Your task to perform on an android device: Show me popular games on the Play Store Image 0: 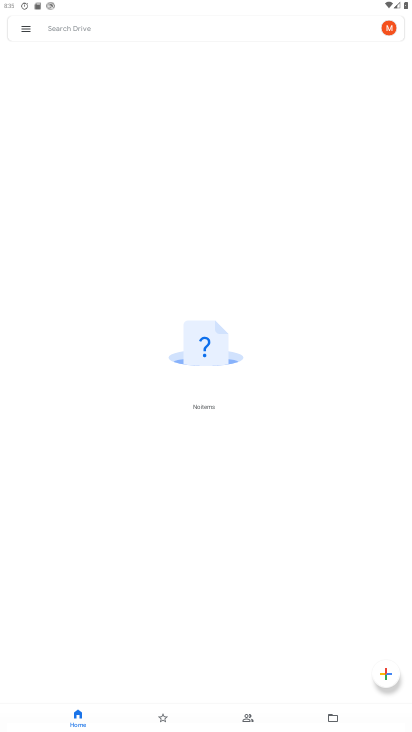
Step 0: press home button
Your task to perform on an android device: Show me popular games on the Play Store Image 1: 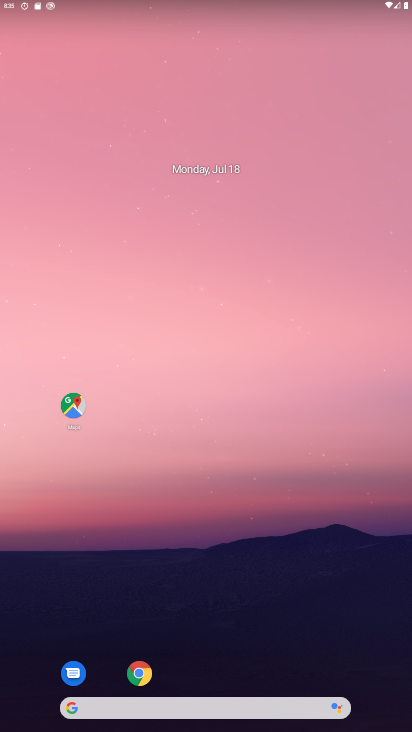
Step 1: click (170, 210)
Your task to perform on an android device: Show me popular games on the Play Store Image 2: 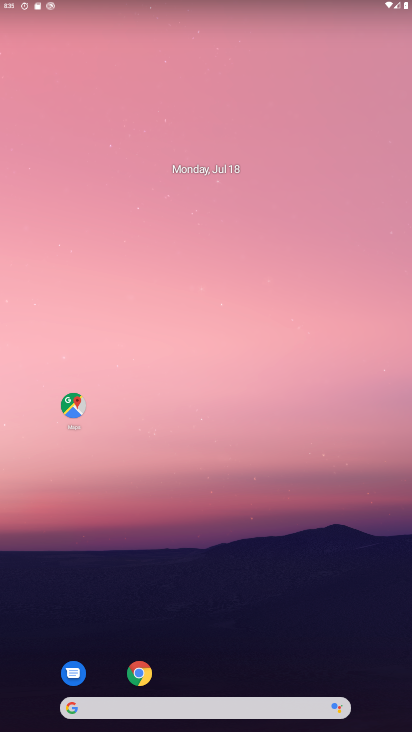
Step 2: drag from (174, 513) to (180, 41)
Your task to perform on an android device: Show me popular games on the Play Store Image 3: 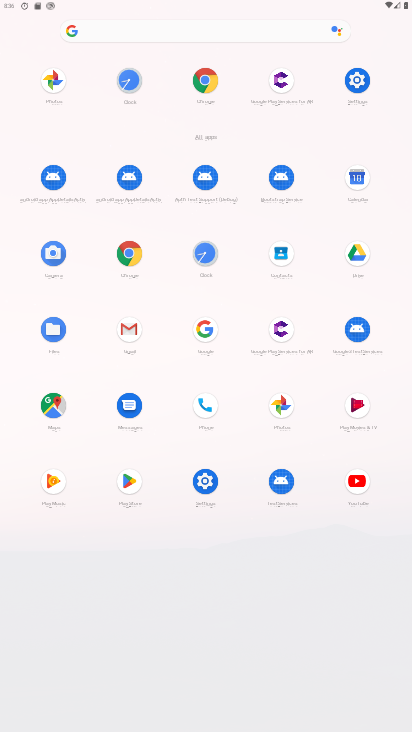
Step 3: click (128, 499)
Your task to perform on an android device: Show me popular games on the Play Store Image 4: 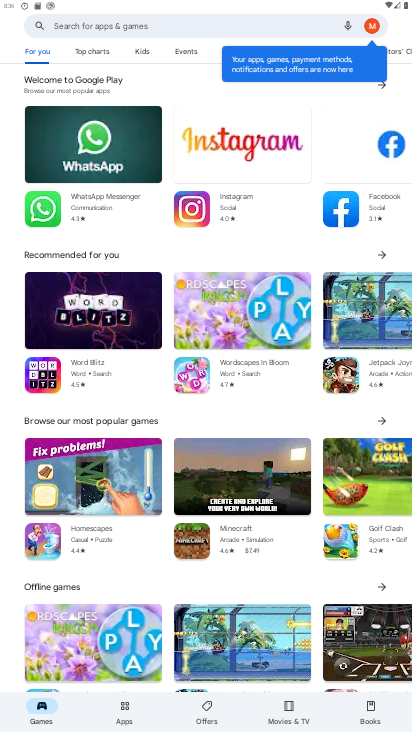
Step 4: task complete